Your task to perform on an android device: check android version Image 0: 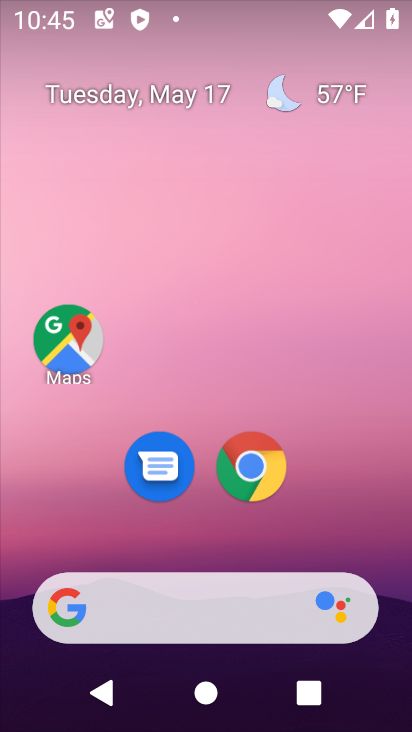
Step 0: drag from (264, 652) to (332, 141)
Your task to perform on an android device: check android version Image 1: 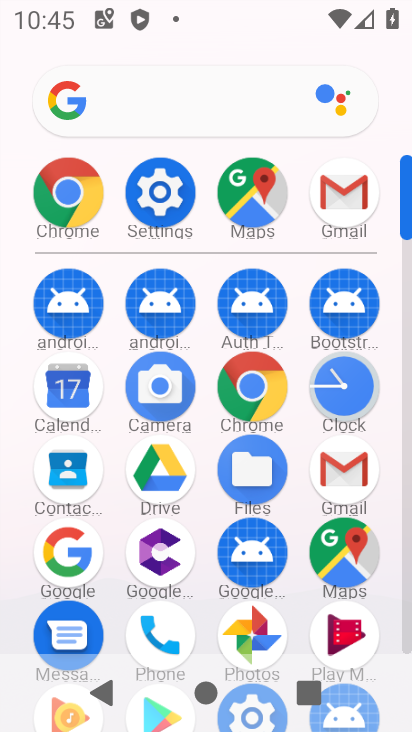
Step 1: click (166, 183)
Your task to perform on an android device: check android version Image 2: 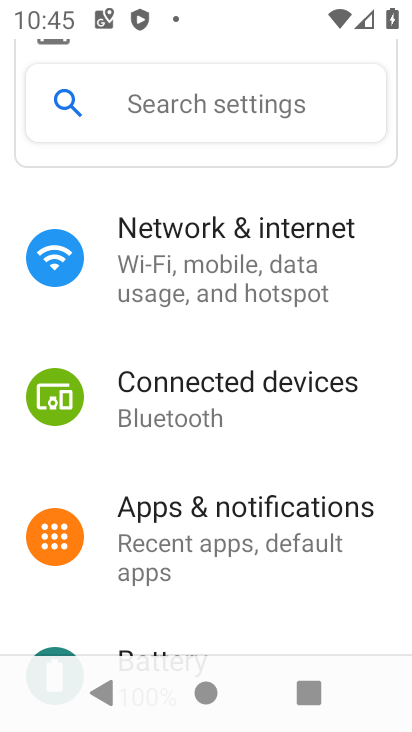
Step 2: click (174, 122)
Your task to perform on an android device: check android version Image 3: 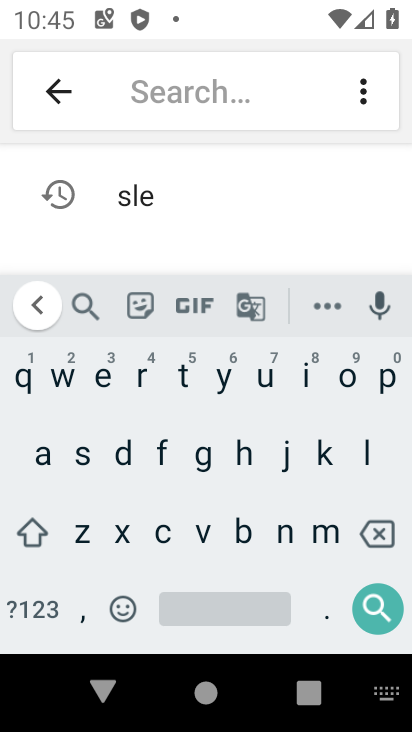
Step 3: click (40, 474)
Your task to perform on an android device: check android version Image 4: 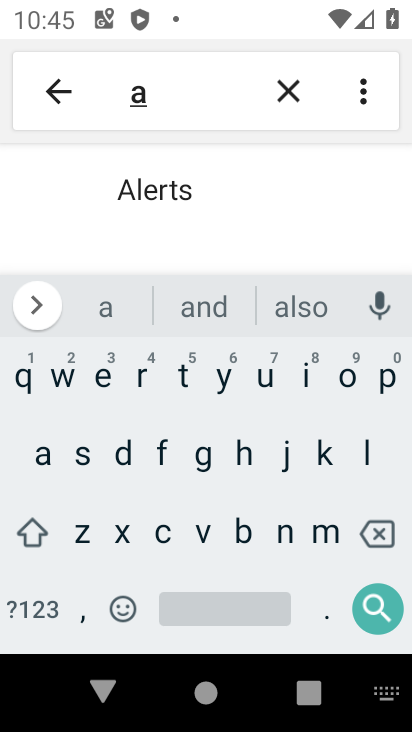
Step 4: click (283, 523)
Your task to perform on an android device: check android version Image 5: 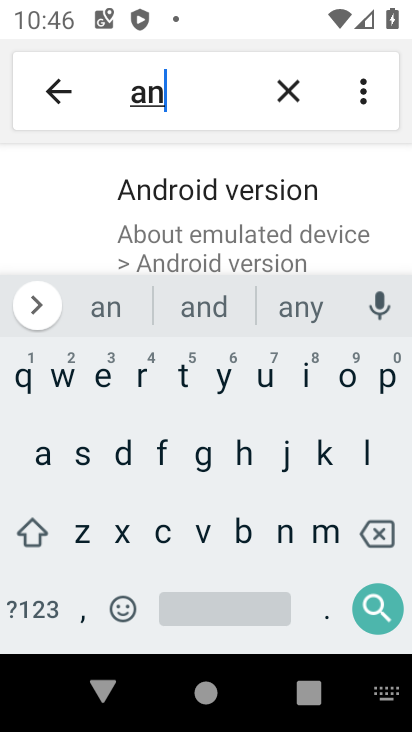
Step 5: click (226, 217)
Your task to perform on an android device: check android version Image 6: 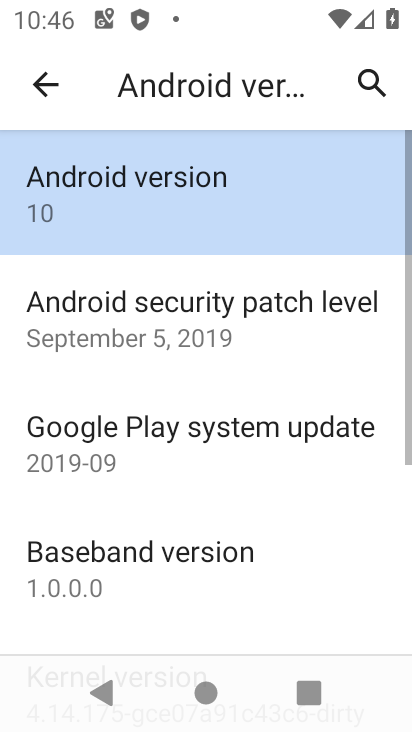
Step 6: click (168, 213)
Your task to perform on an android device: check android version Image 7: 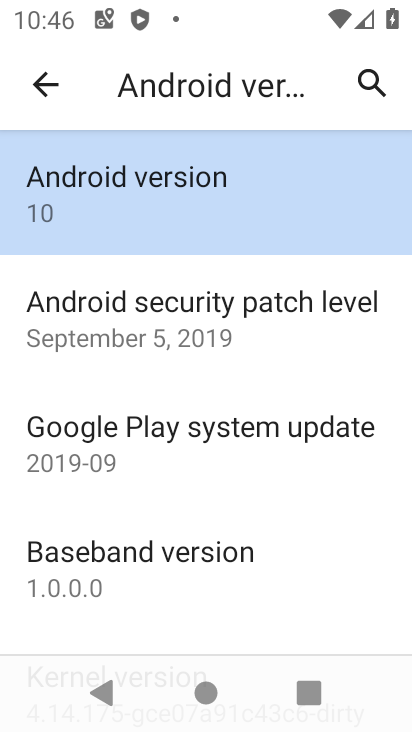
Step 7: task complete